Your task to perform on an android device: Go to Android settings Image 0: 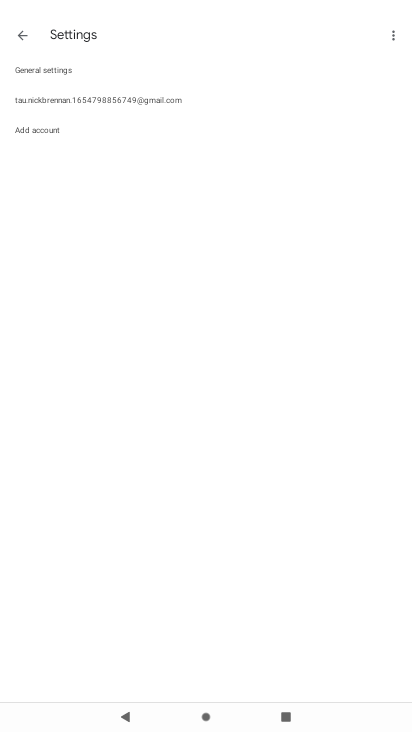
Step 0: press home button
Your task to perform on an android device: Go to Android settings Image 1: 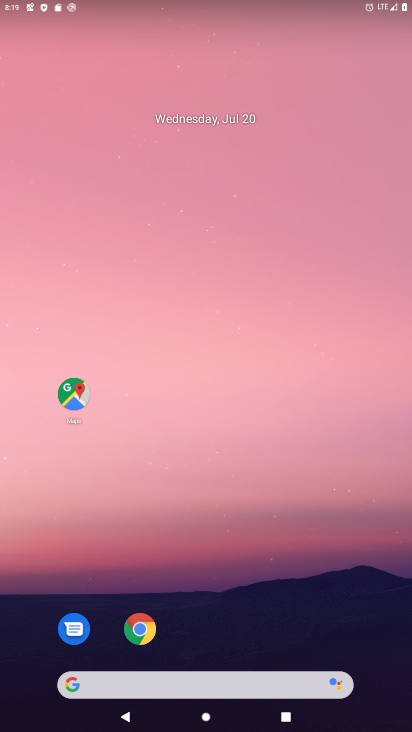
Step 1: drag from (186, 273) to (200, 73)
Your task to perform on an android device: Go to Android settings Image 2: 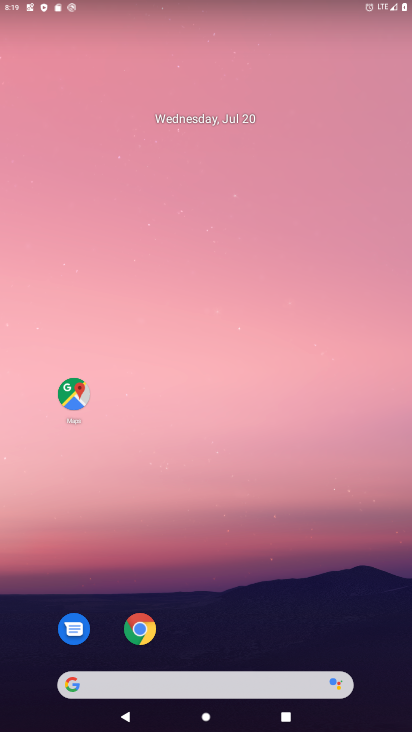
Step 2: drag from (199, 634) to (178, 65)
Your task to perform on an android device: Go to Android settings Image 3: 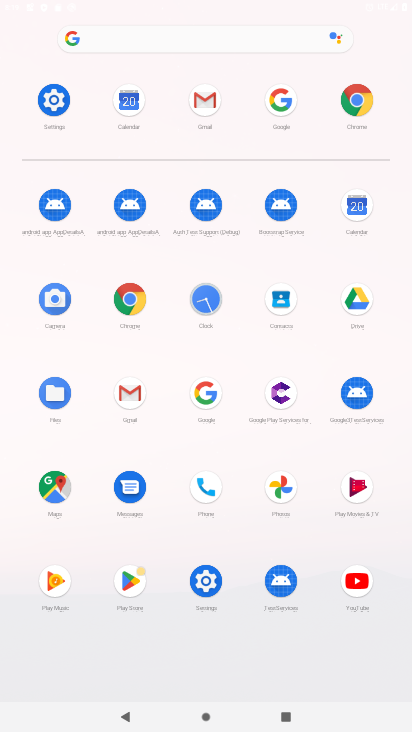
Step 3: click (49, 102)
Your task to perform on an android device: Go to Android settings Image 4: 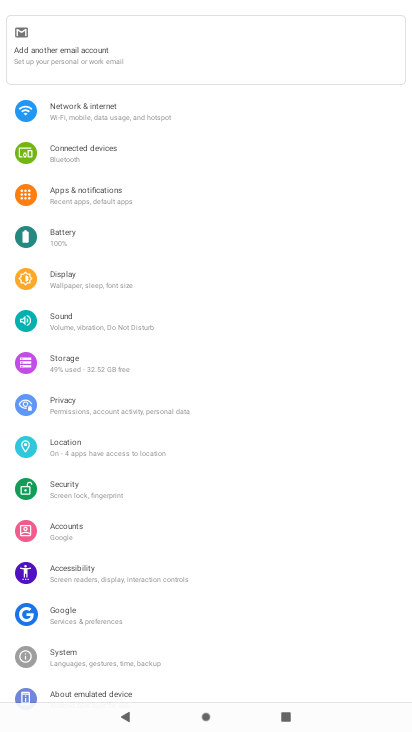
Step 4: click (60, 698)
Your task to perform on an android device: Go to Android settings Image 5: 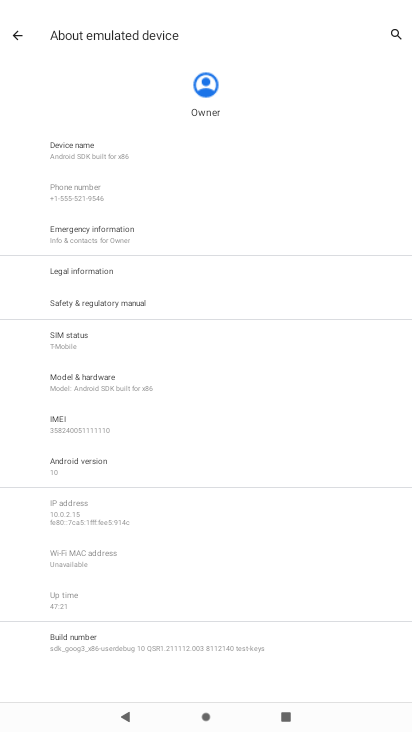
Step 5: click (58, 462)
Your task to perform on an android device: Go to Android settings Image 6: 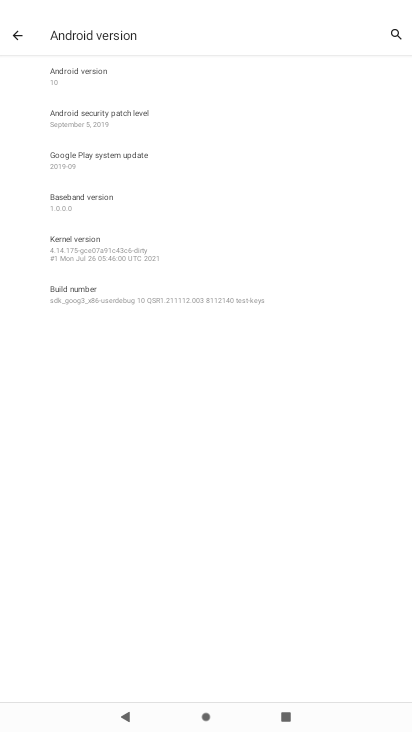
Step 6: task complete